Your task to perform on an android device: toggle airplane mode Image 0: 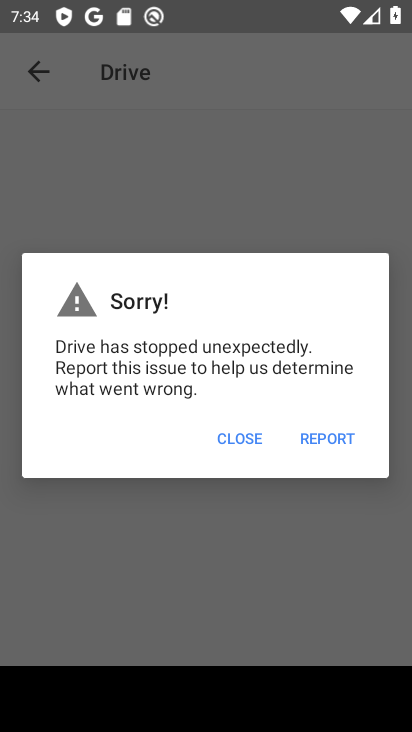
Step 0: press home button
Your task to perform on an android device: toggle airplane mode Image 1: 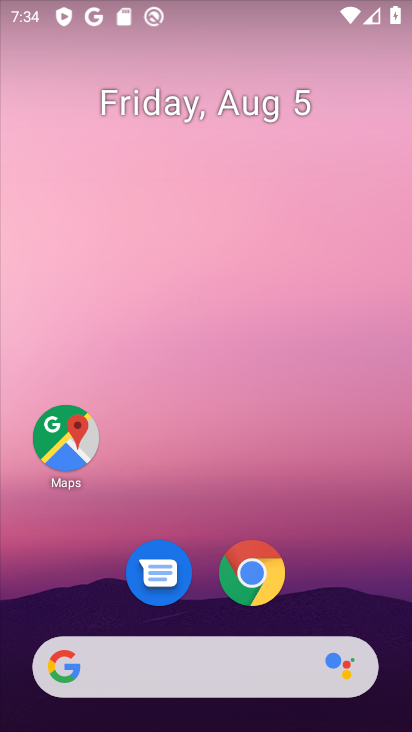
Step 1: drag from (338, 554) to (340, 18)
Your task to perform on an android device: toggle airplane mode Image 2: 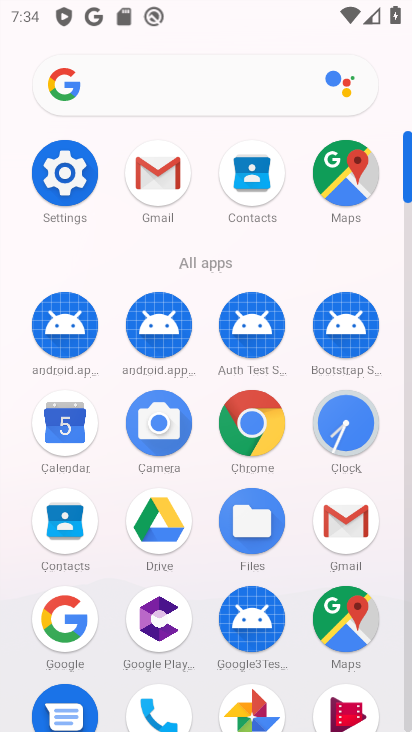
Step 2: click (62, 161)
Your task to perform on an android device: toggle airplane mode Image 3: 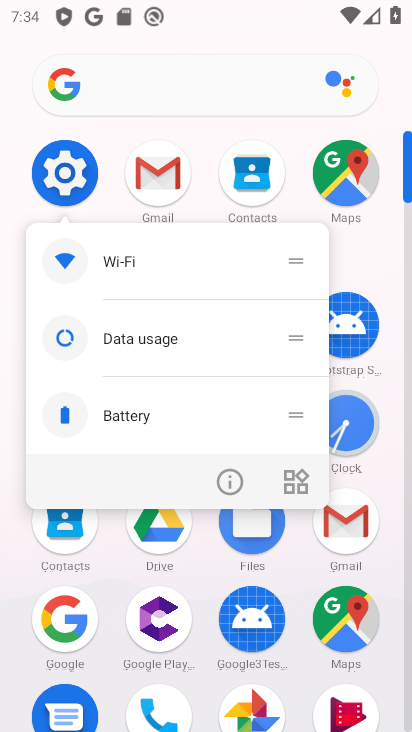
Step 3: click (68, 151)
Your task to perform on an android device: toggle airplane mode Image 4: 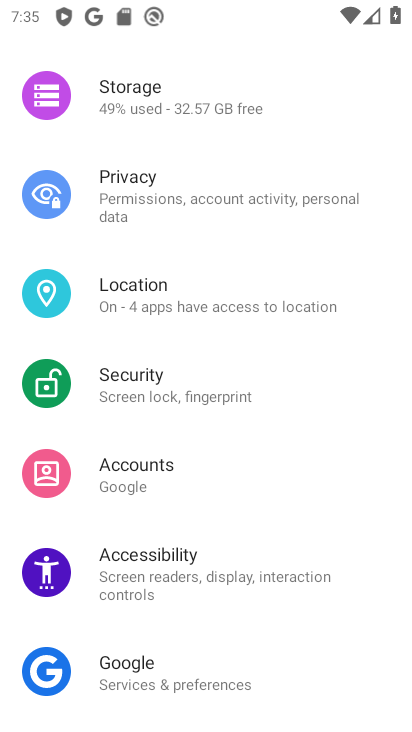
Step 4: drag from (237, 143) to (296, 538)
Your task to perform on an android device: toggle airplane mode Image 5: 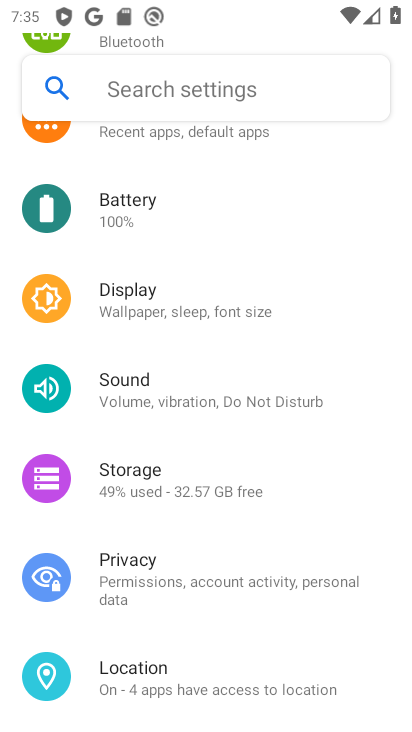
Step 5: drag from (236, 209) to (307, 588)
Your task to perform on an android device: toggle airplane mode Image 6: 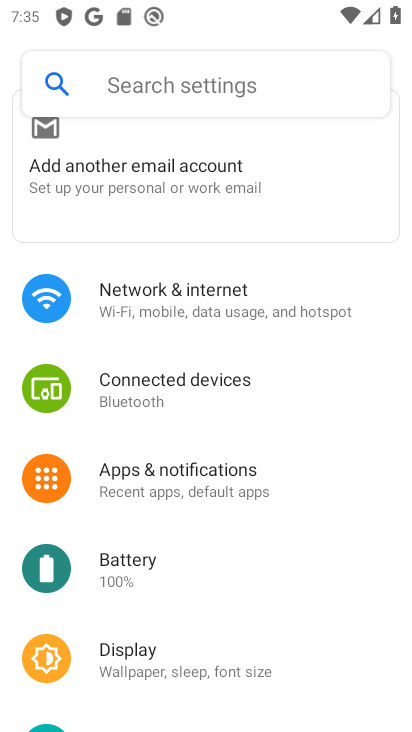
Step 6: click (239, 306)
Your task to perform on an android device: toggle airplane mode Image 7: 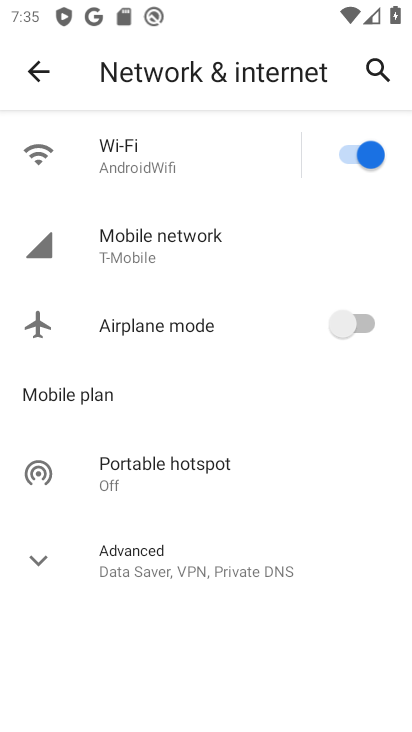
Step 7: click (351, 321)
Your task to perform on an android device: toggle airplane mode Image 8: 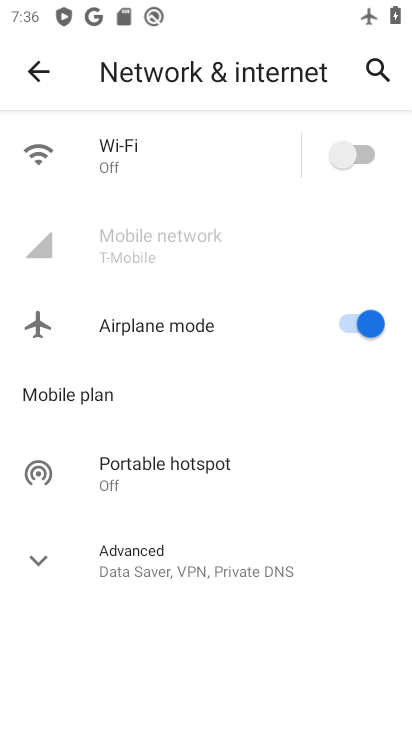
Step 8: task complete